Your task to perform on an android device: Add "alienware aurora" to the cart on walmart.com, then select checkout. Image 0: 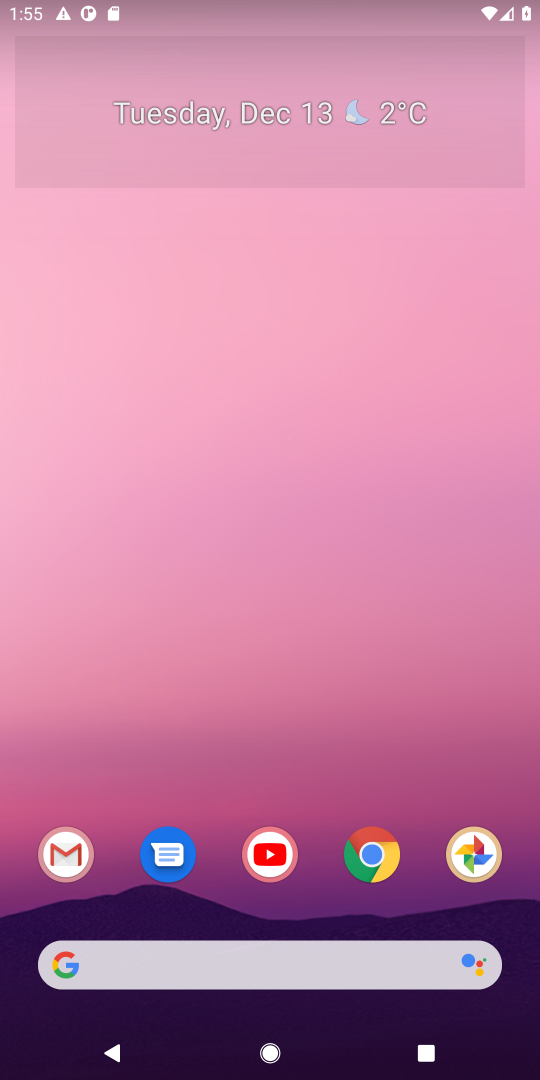
Step 0: click (340, 950)
Your task to perform on an android device: Add "alienware aurora" to the cart on walmart.com, then select checkout. Image 1: 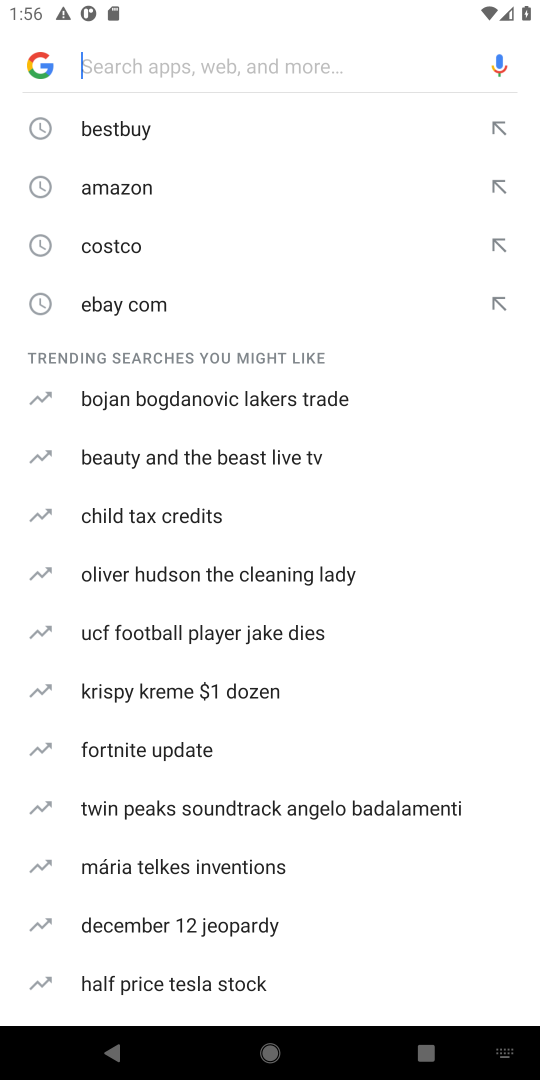
Step 1: type "walmart"
Your task to perform on an android device: Add "alienware aurora" to the cart on walmart.com, then select checkout. Image 2: 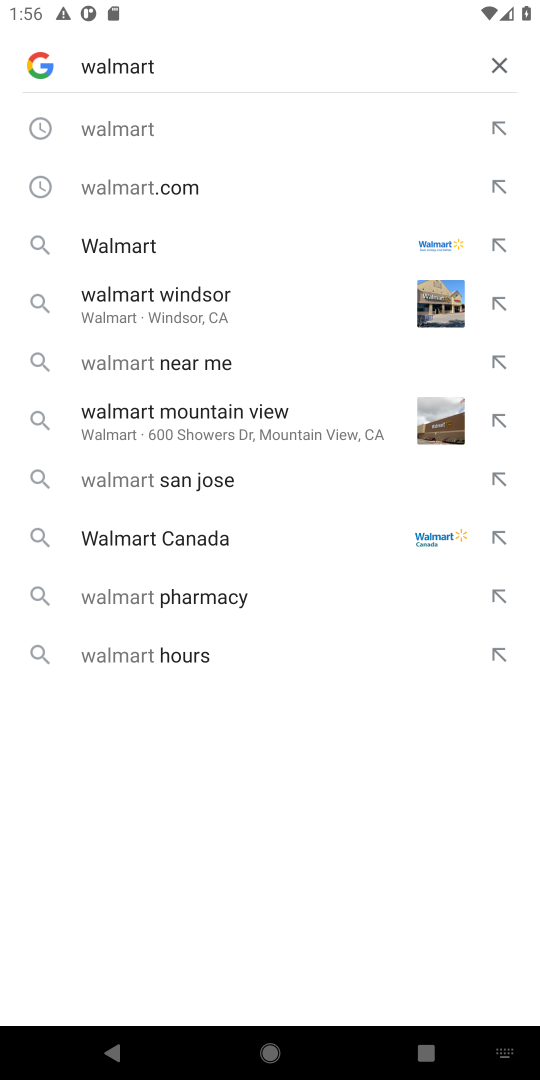
Step 2: click (78, 126)
Your task to perform on an android device: Add "alienware aurora" to the cart on walmart.com, then select checkout. Image 3: 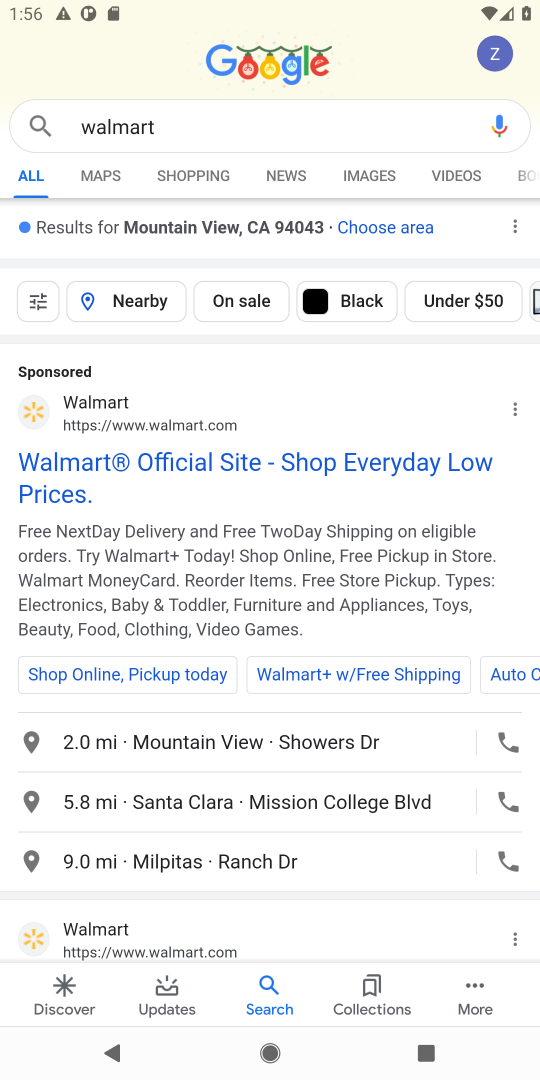
Step 3: click (256, 494)
Your task to perform on an android device: Add "alienware aurora" to the cart on walmart.com, then select checkout. Image 4: 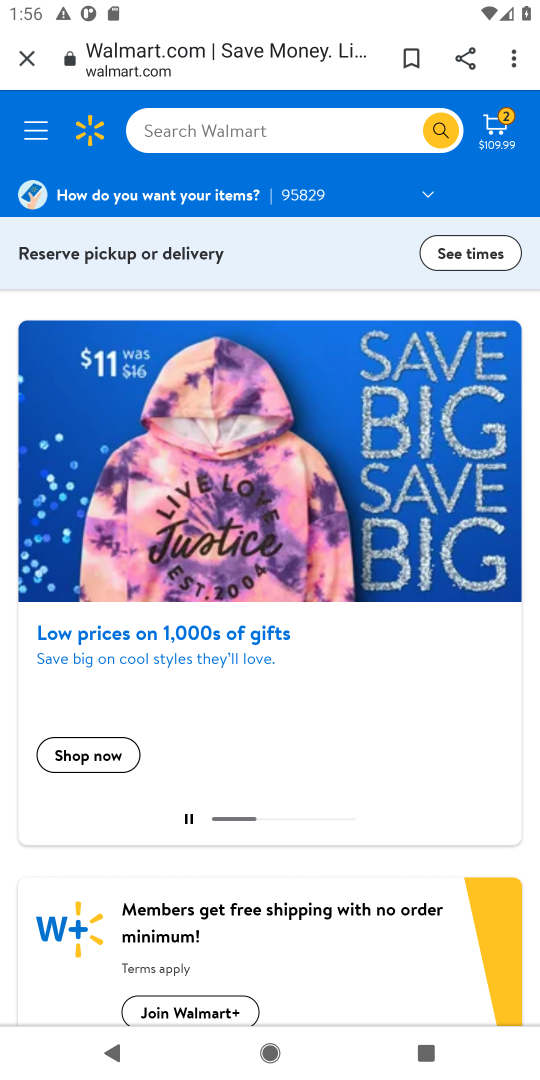
Step 4: task complete